Your task to perform on an android device: Go to CNN.com Image 0: 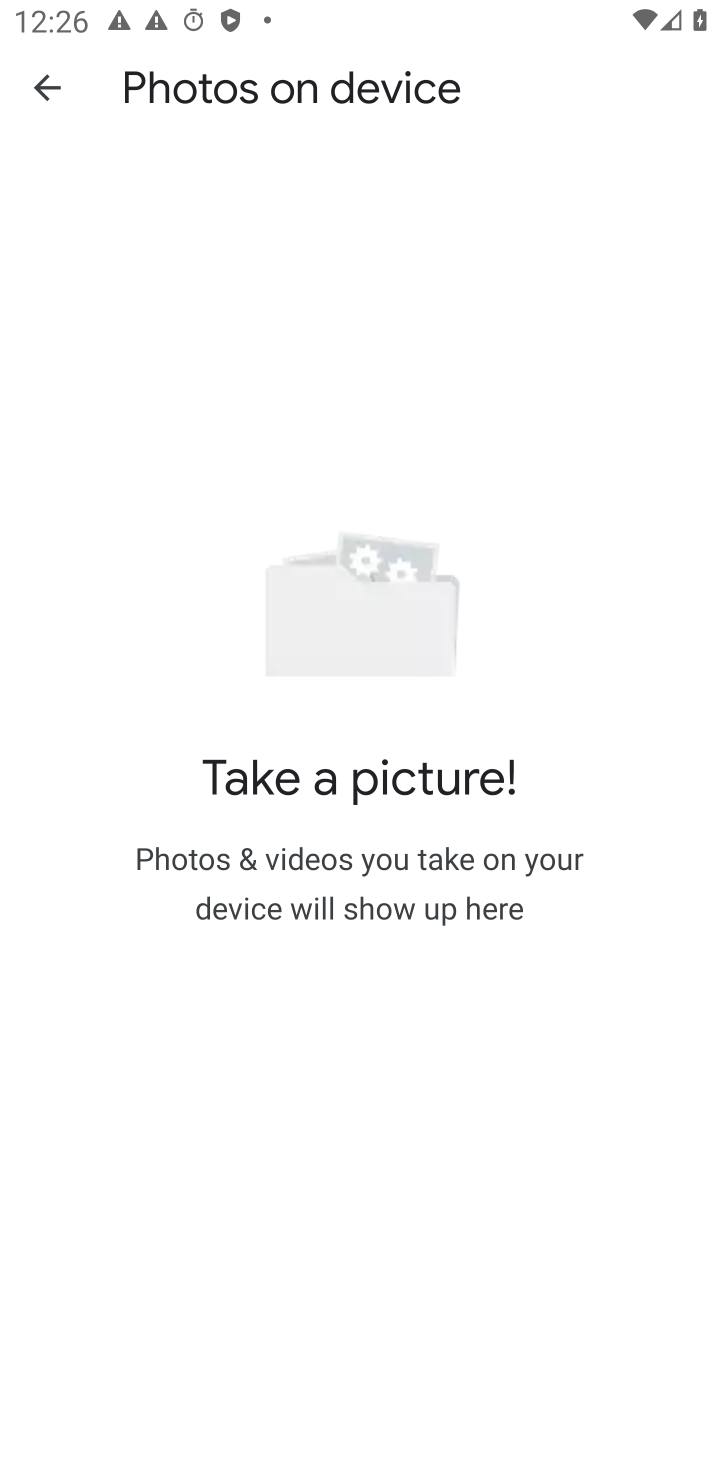
Step 0: press home button
Your task to perform on an android device: Go to CNN.com Image 1: 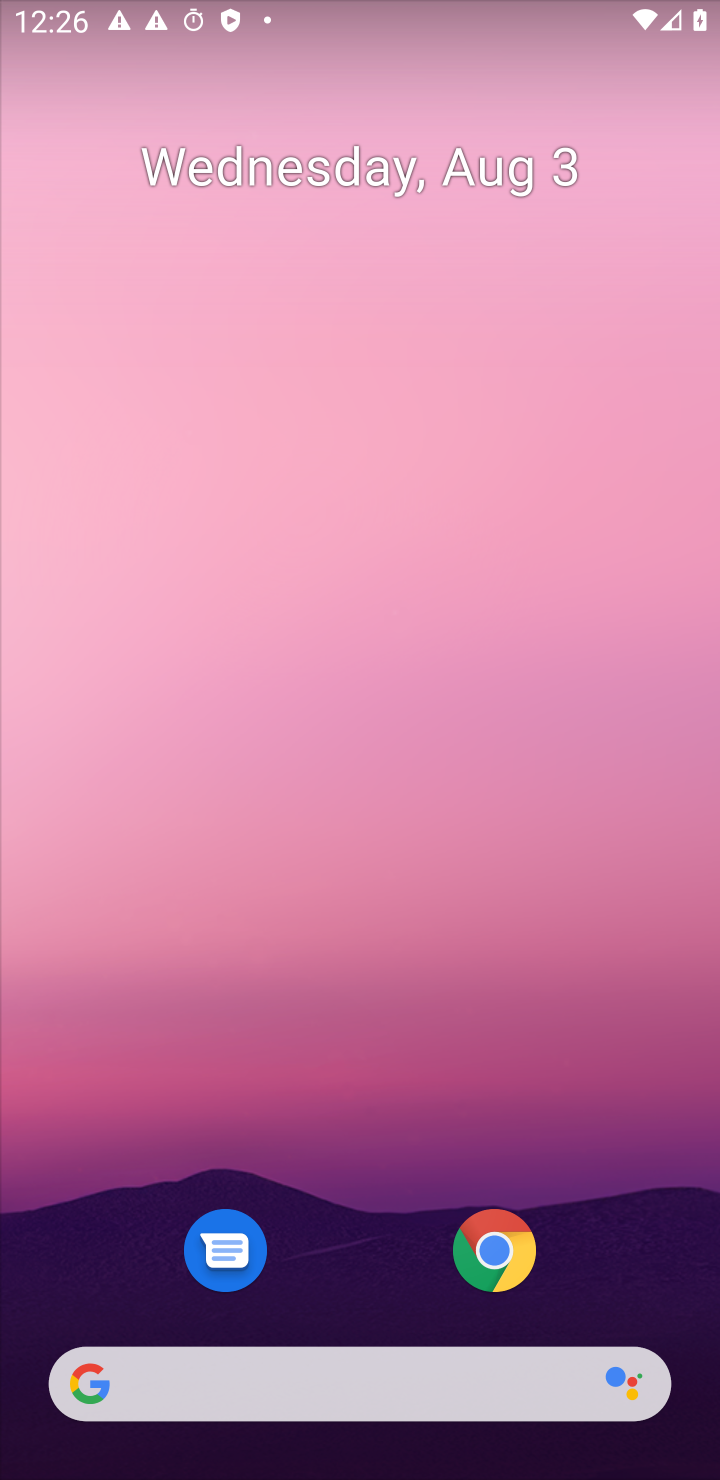
Step 1: click (481, 1268)
Your task to perform on an android device: Go to CNN.com Image 2: 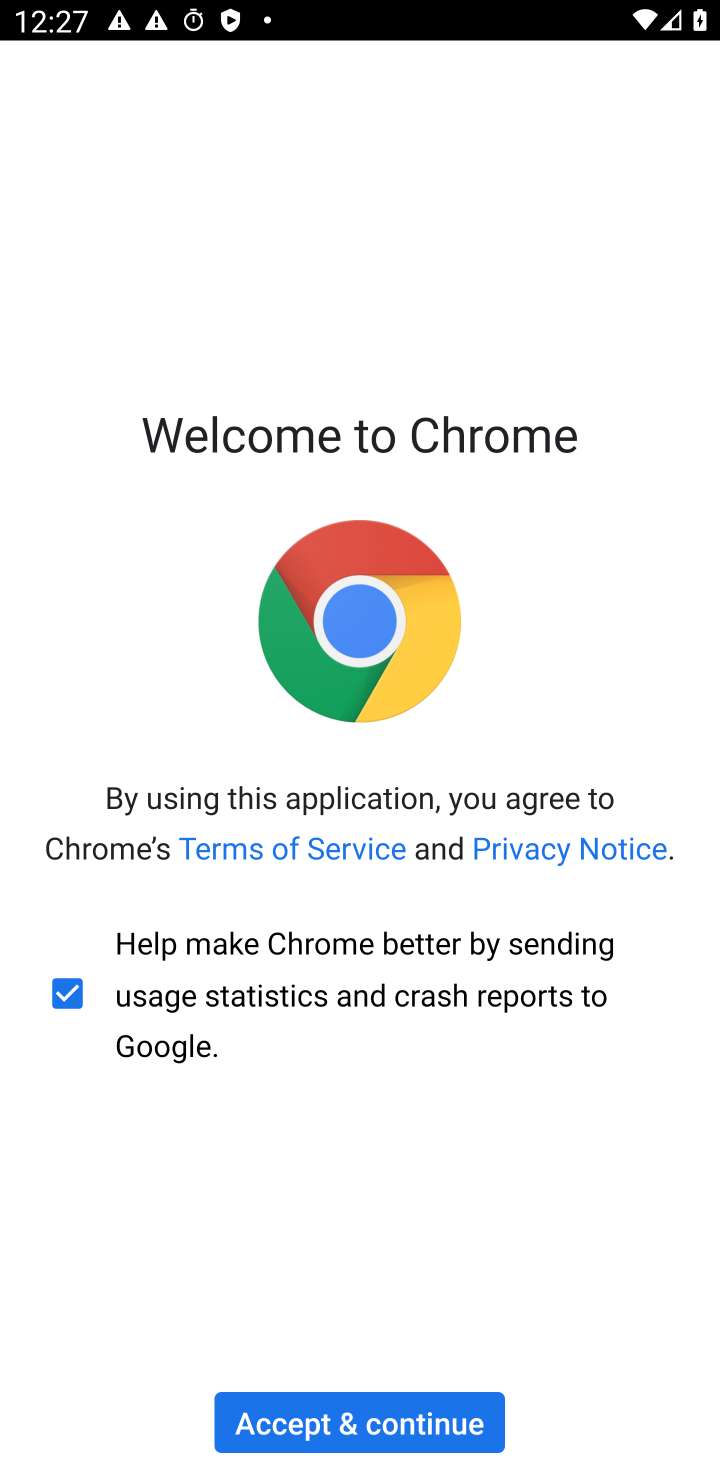
Step 2: click (353, 1414)
Your task to perform on an android device: Go to CNN.com Image 3: 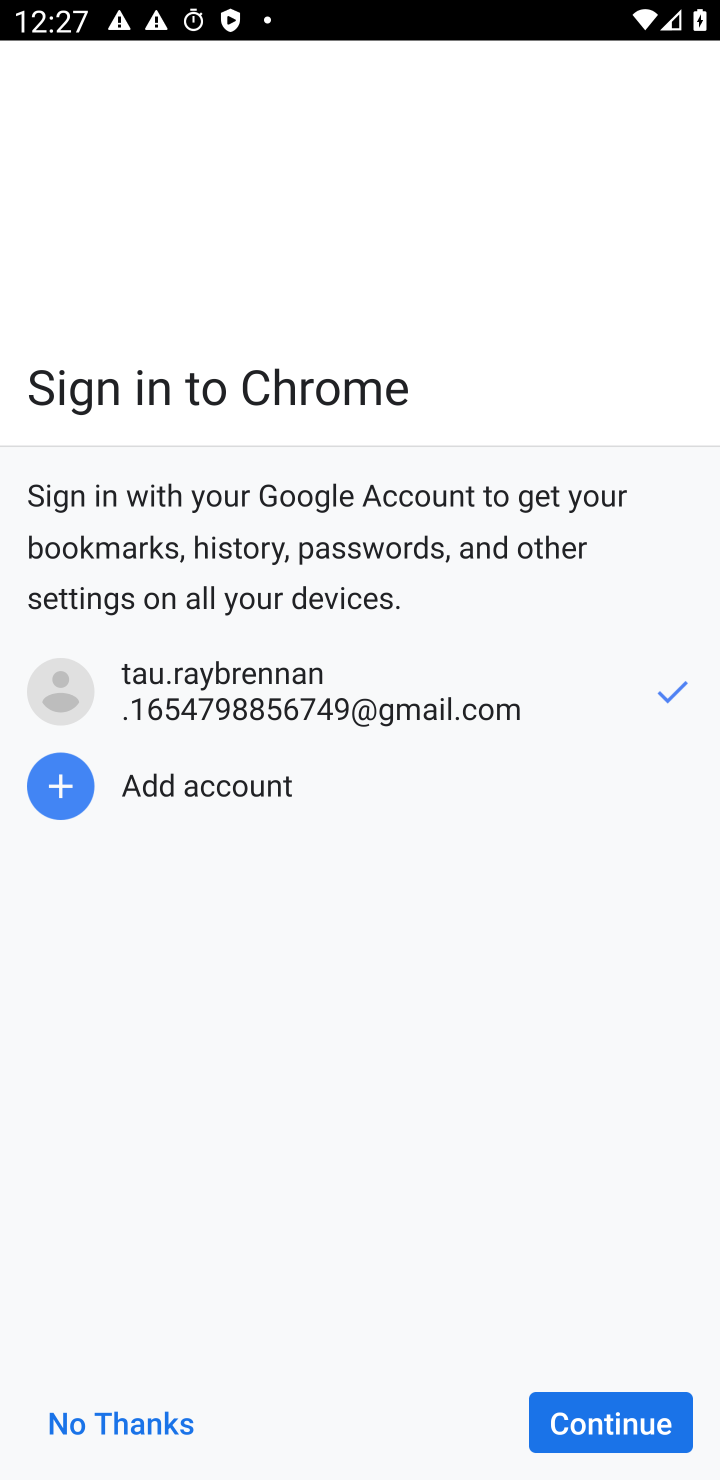
Step 3: click (651, 1418)
Your task to perform on an android device: Go to CNN.com Image 4: 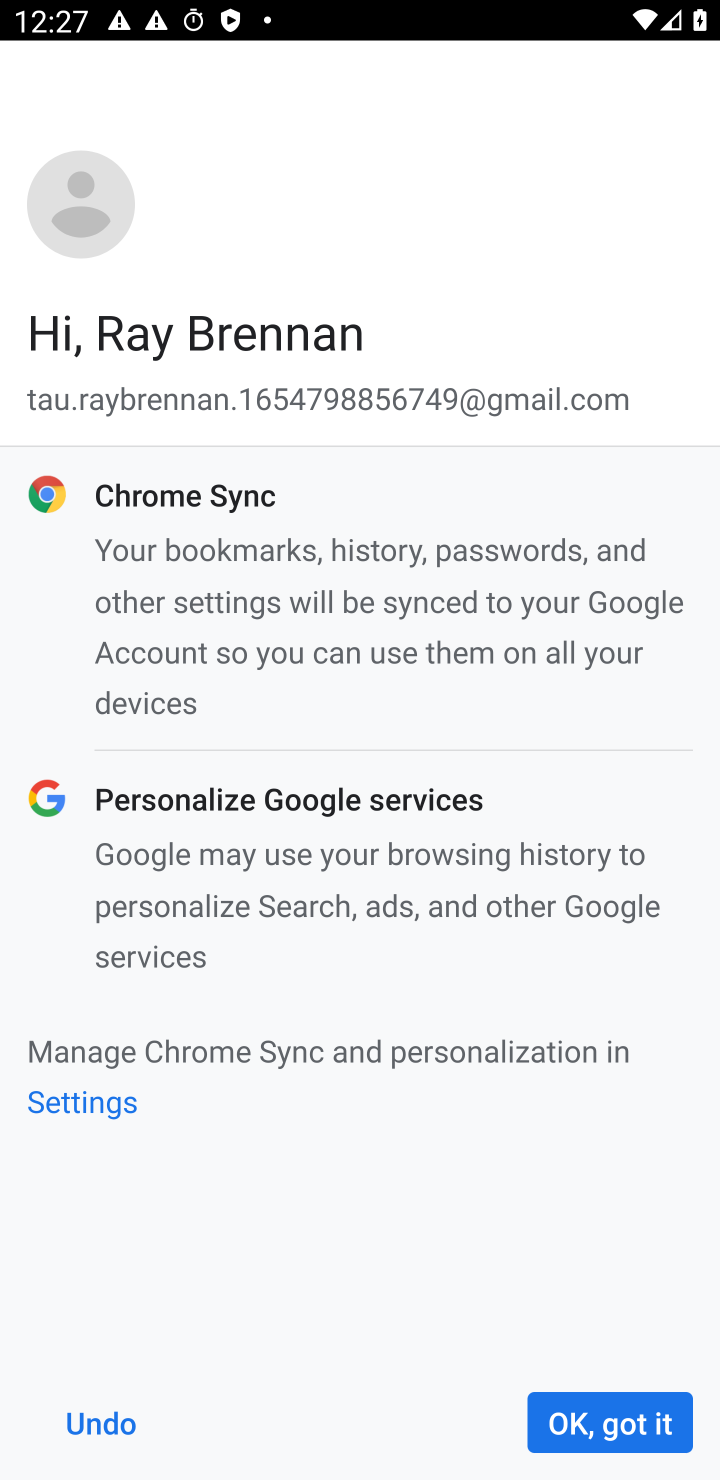
Step 4: click (651, 1418)
Your task to perform on an android device: Go to CNN.com Image 5: 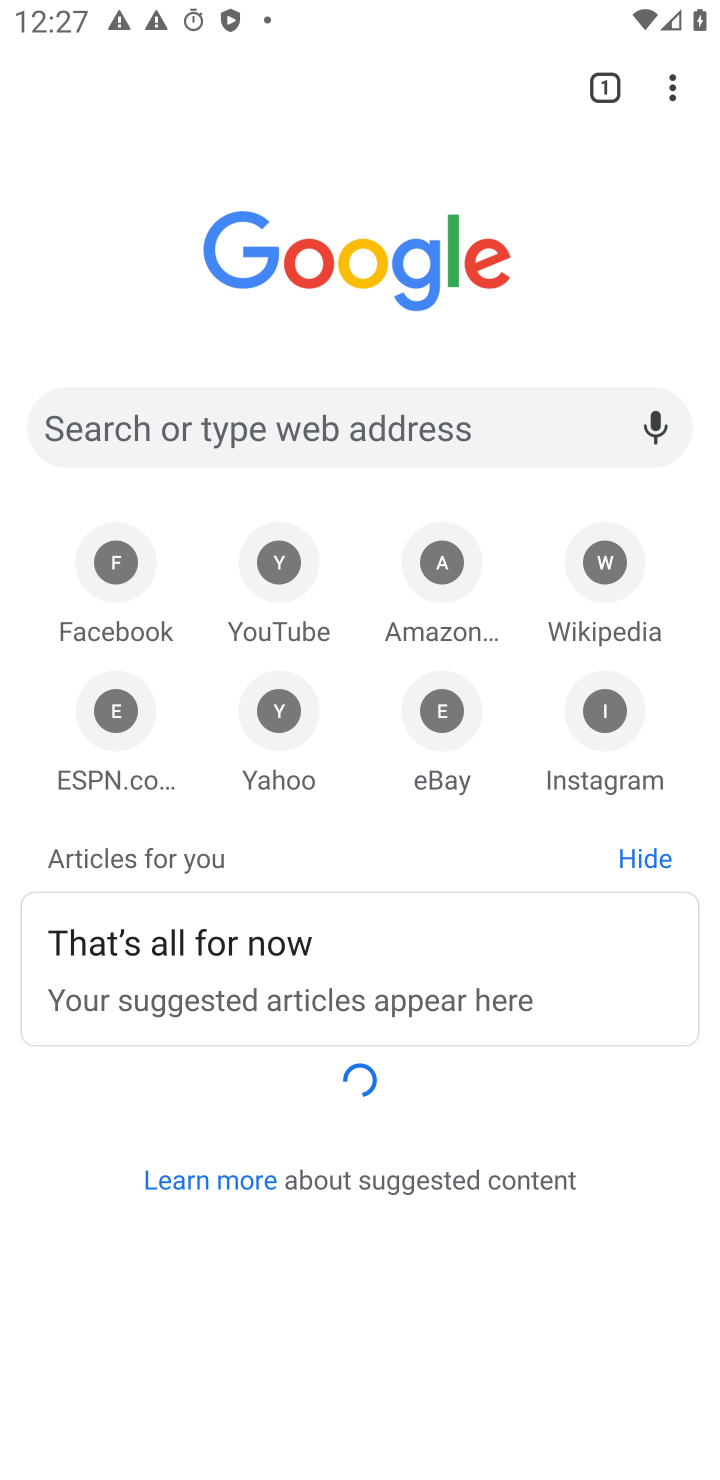
Step 5: click (295, 420)
Your task to perform on an android device: Go to CNN.com Image 6: 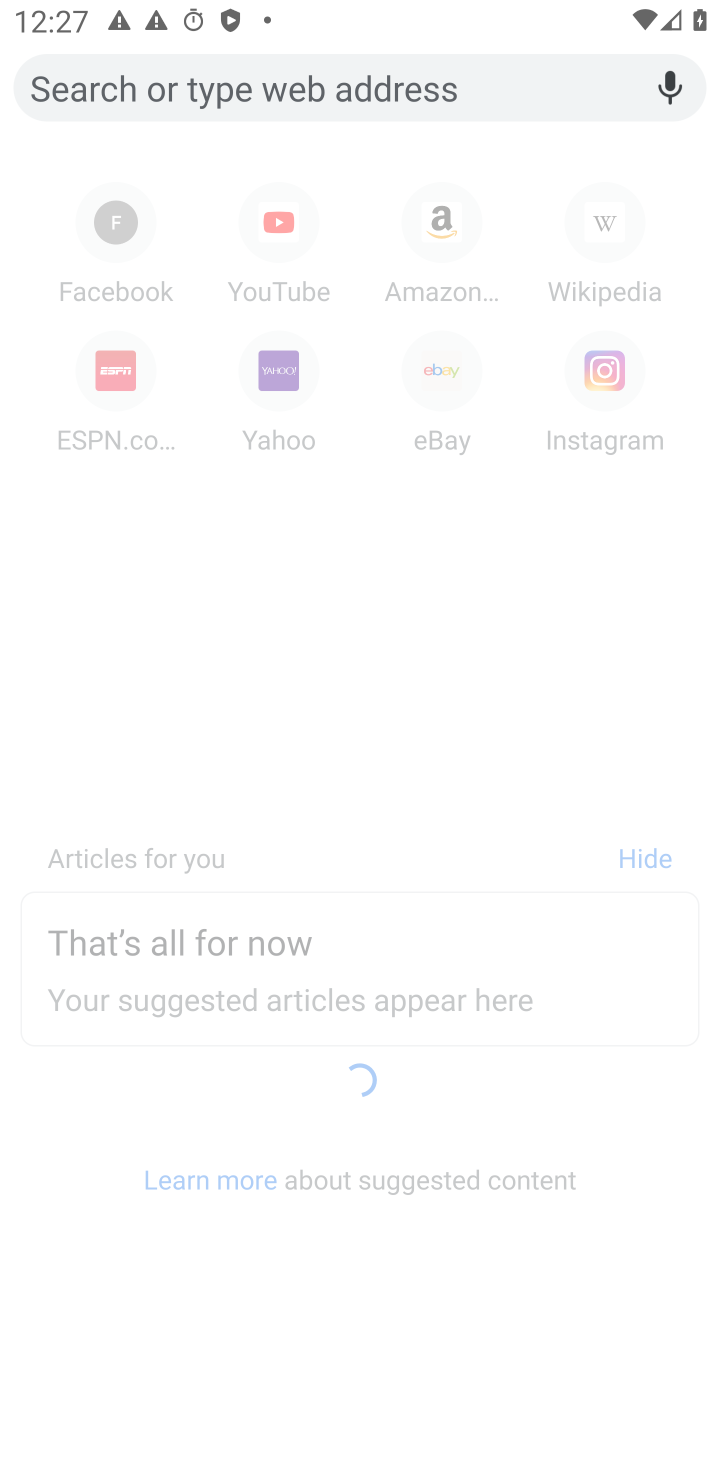
Step 6: type ""
Your task to perform on an android device: Go to CNN.com Image 7: 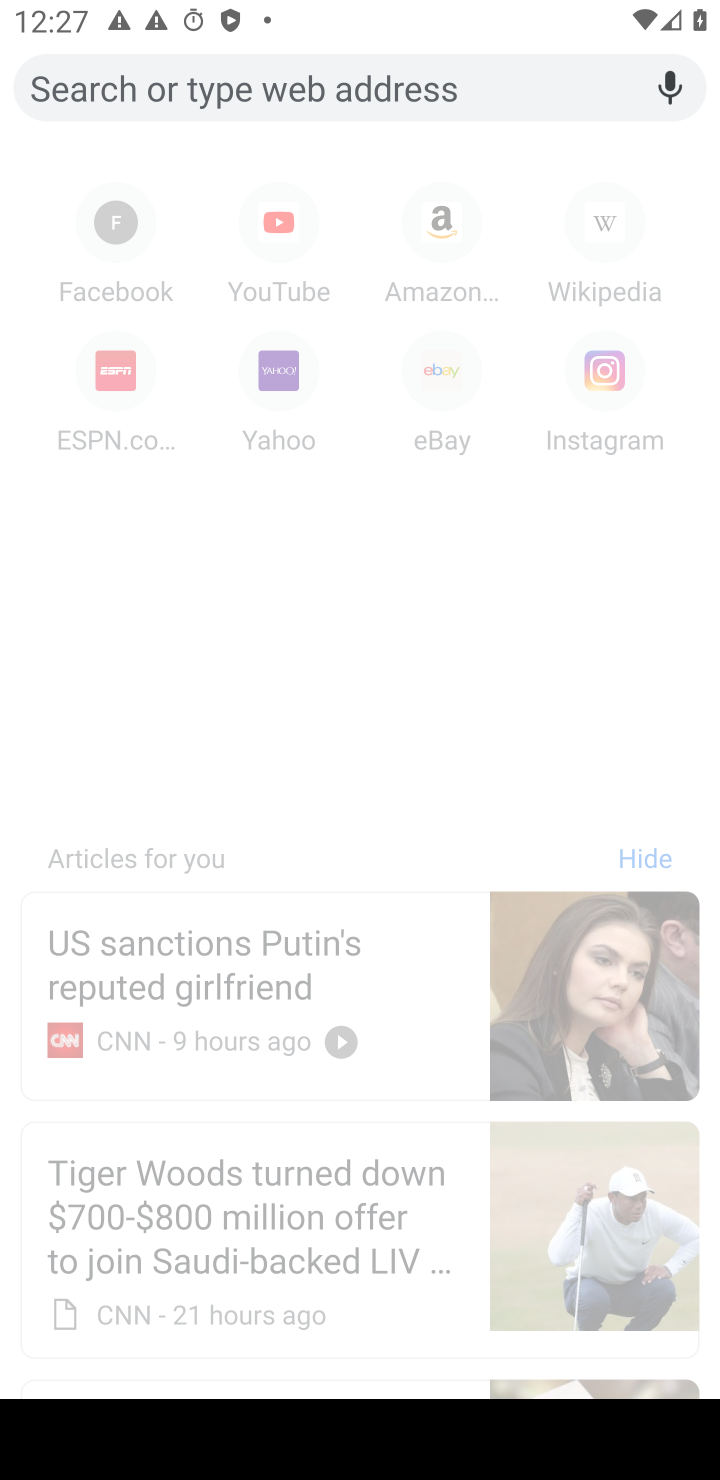
Step 7: type "CNN.com"
Your task to perform on an android device: Go to CNN.com Image 8: 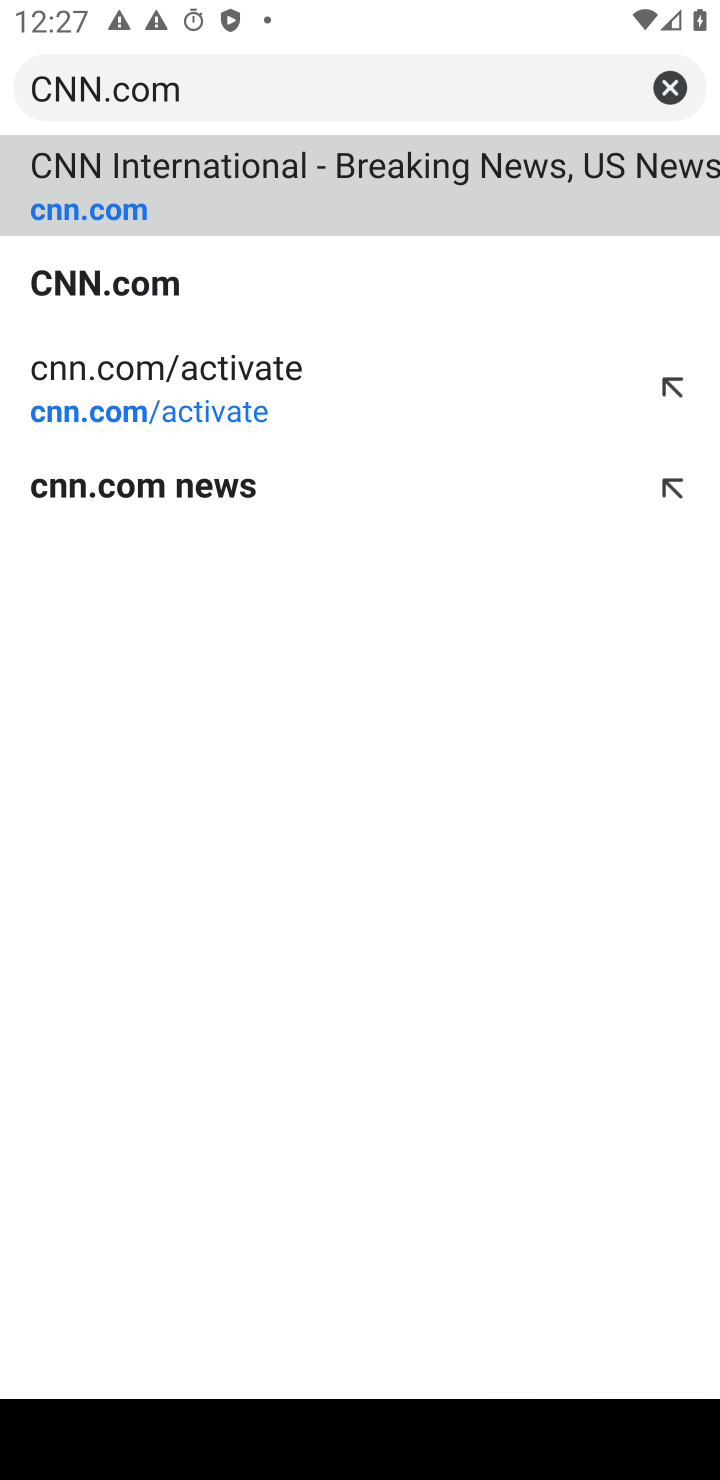
Step 8: click (295, 173)
Your task to perform on an android device: Go to CNN.com Image 9: 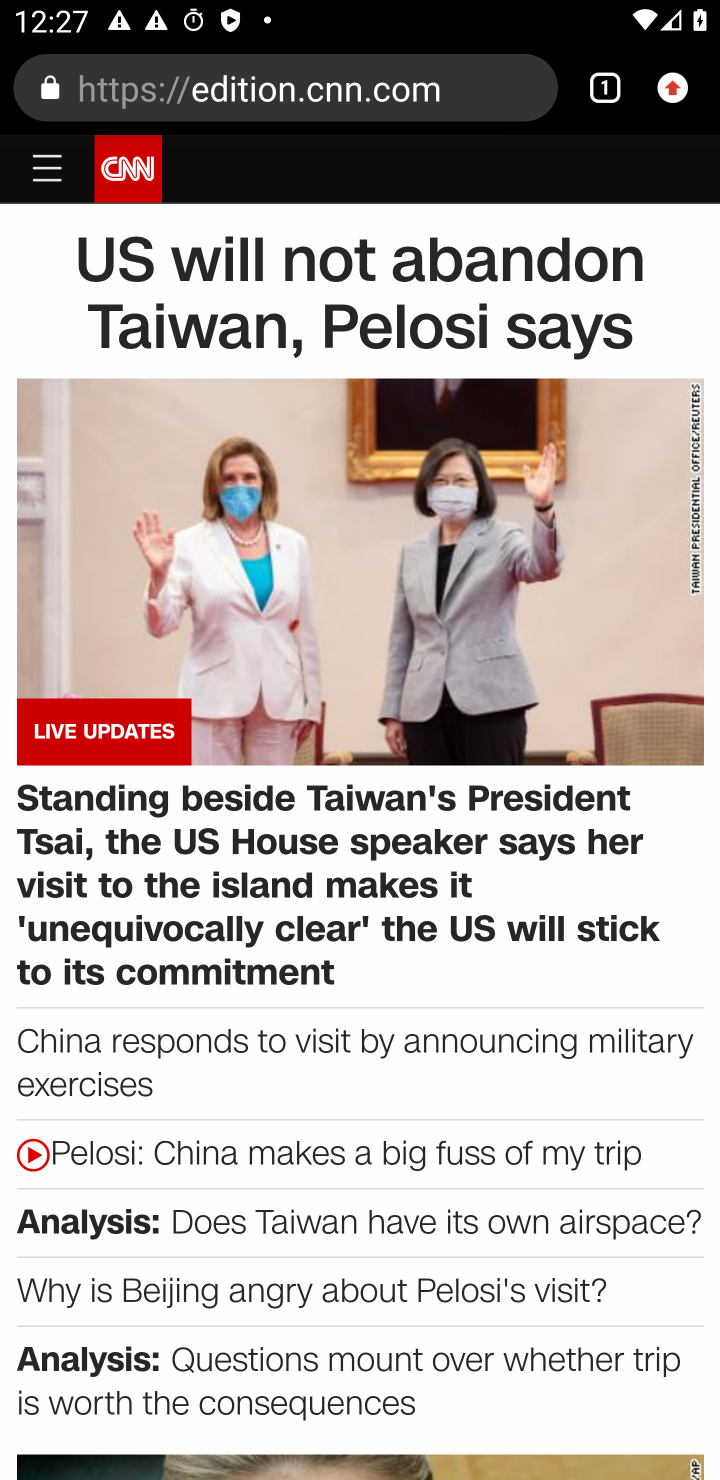
Step 9: task complete